Your task to perform on an android device: Add "razer huntsman" to the cart on walmart Image 0: 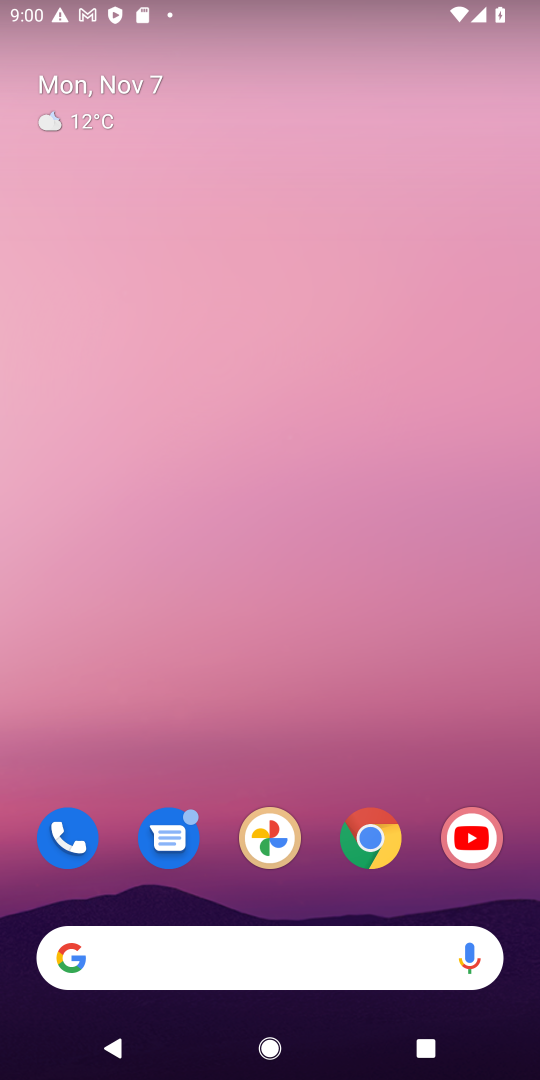
Step 0: click (386, 839)
Your task to perform on an android device: Add "razer huntsman" to the cart on walmart Image 1: 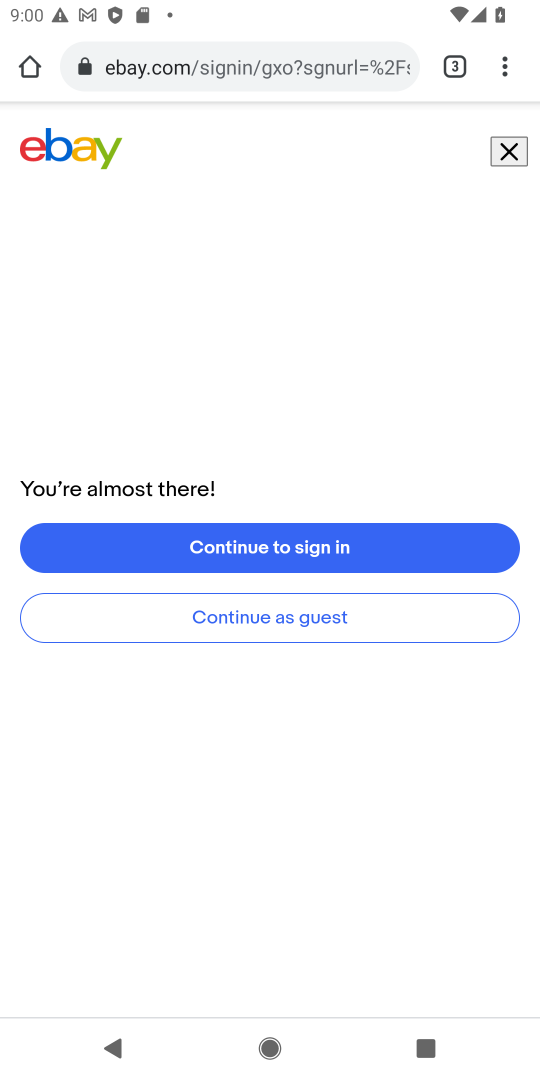
Step 1: click (453, 75)
Your task to perform on an android device: Add "razer huntsman" to the cart on walmart Image 2: 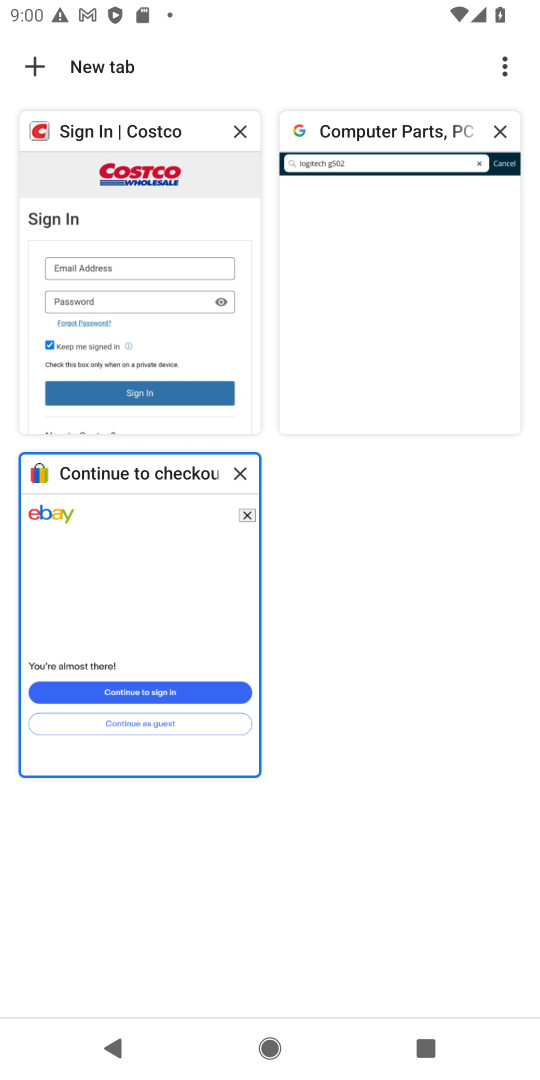
Step 2: click (23, 56)
Your task to perform on an android device: Add "razer huntsman" to the cart on walmart Image 3: 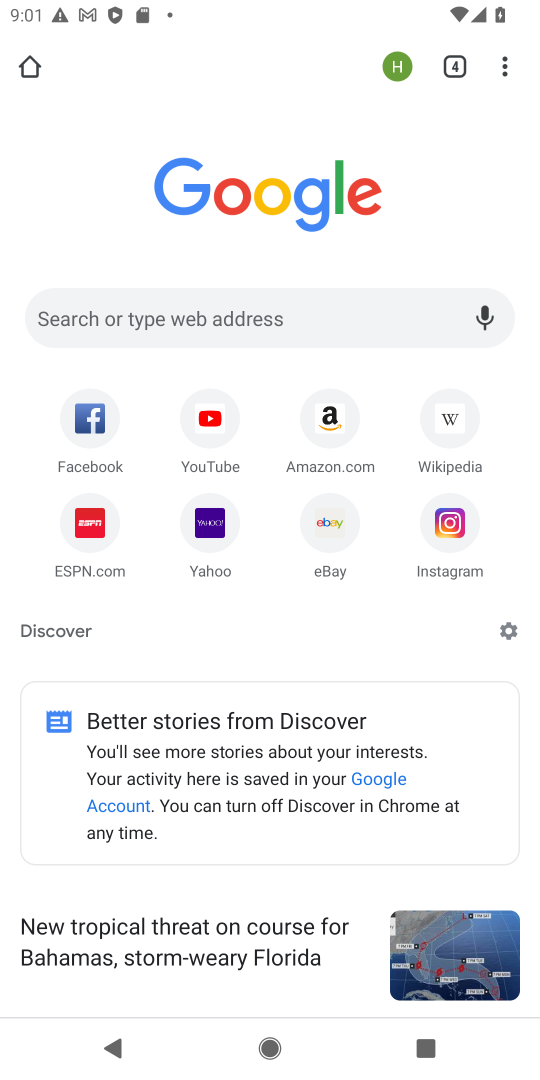
Step 3: click (172, 305)
Your task to perform on an android device: Add "razer huntsman" to the cart on walmart Image 4: 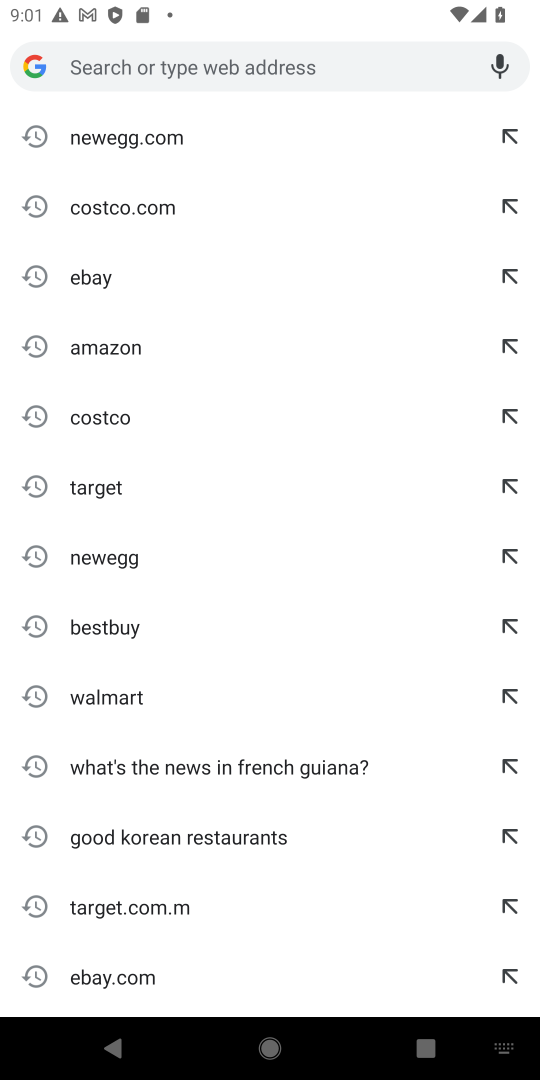
Step 4: click (123, 685)
Your task to perform on an android device: Add "razer huntsman" to the cart on walmart Image 5: 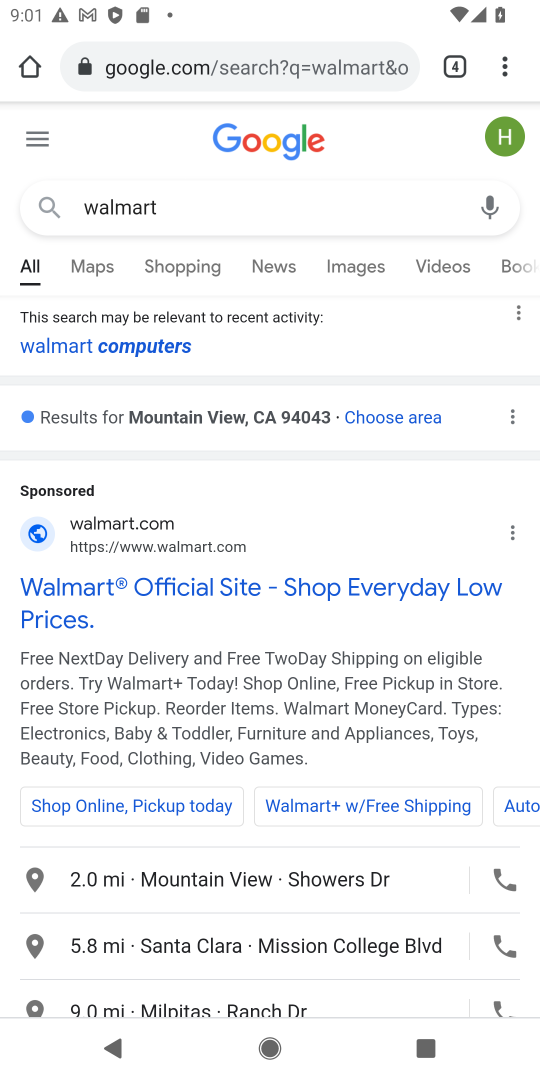
Step 5: drag from (155, 813) to (177, 394)
Your task to perform on an android device: Add "razer huntsman" to the cart on walmart Image 6: 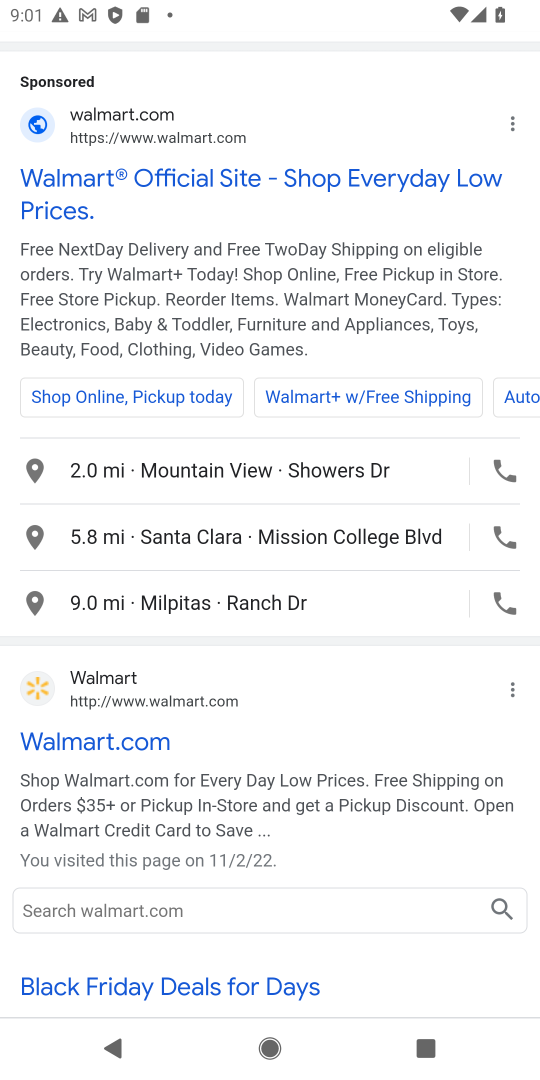
Step 6: click (124, 917)
Your task to perform on an android device: Add "razer huntsman" to the cart on walmart Image 7: 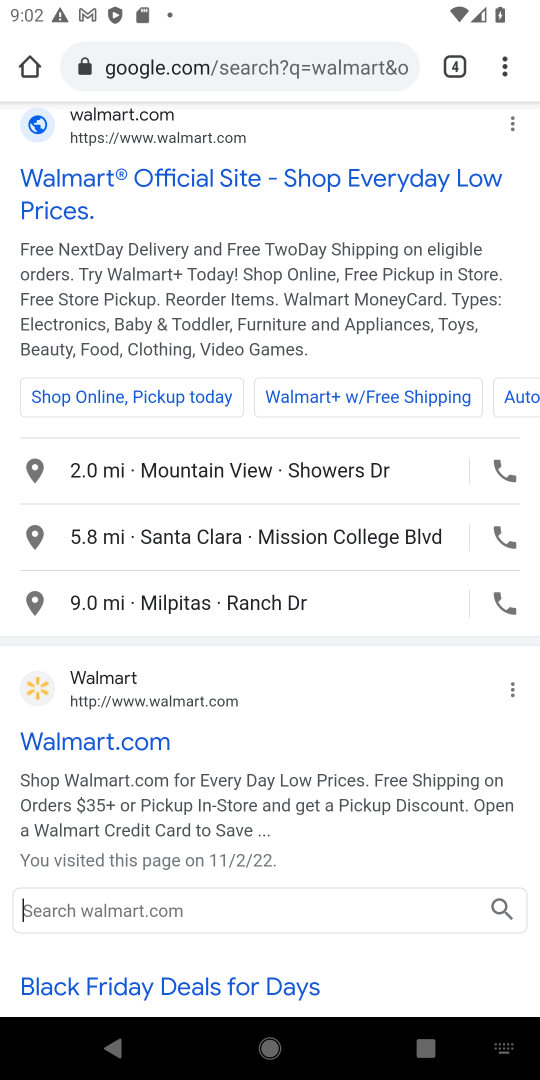
Step 7: press enter
Your task to perform on an android device: Add "razer huntsman" to the cart on walmart Image 8: 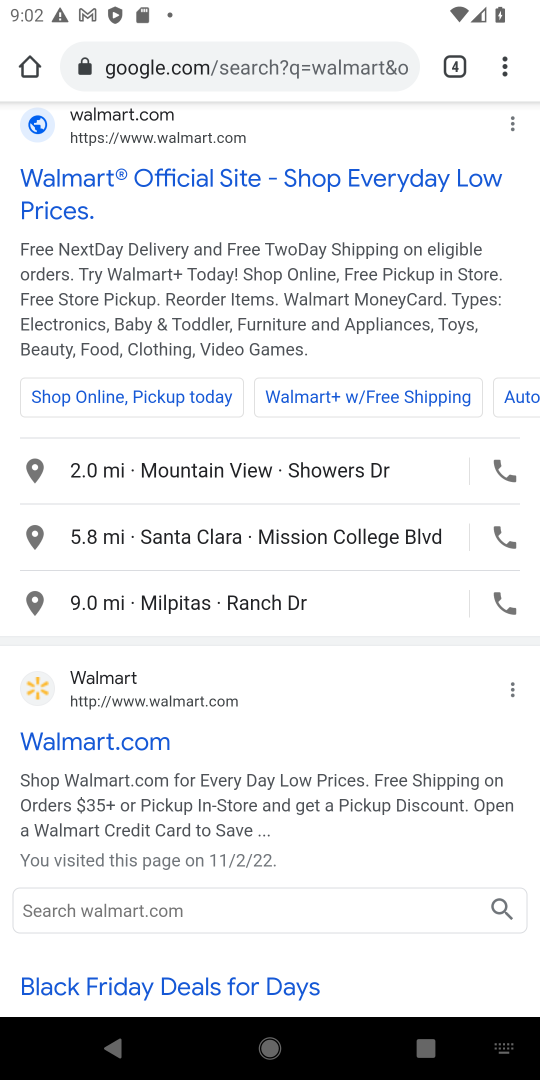
Step 8: type "razer huntsman"
Your task to perform on an android device: Add "razer huntsman" to the cart on walmart Image 9: 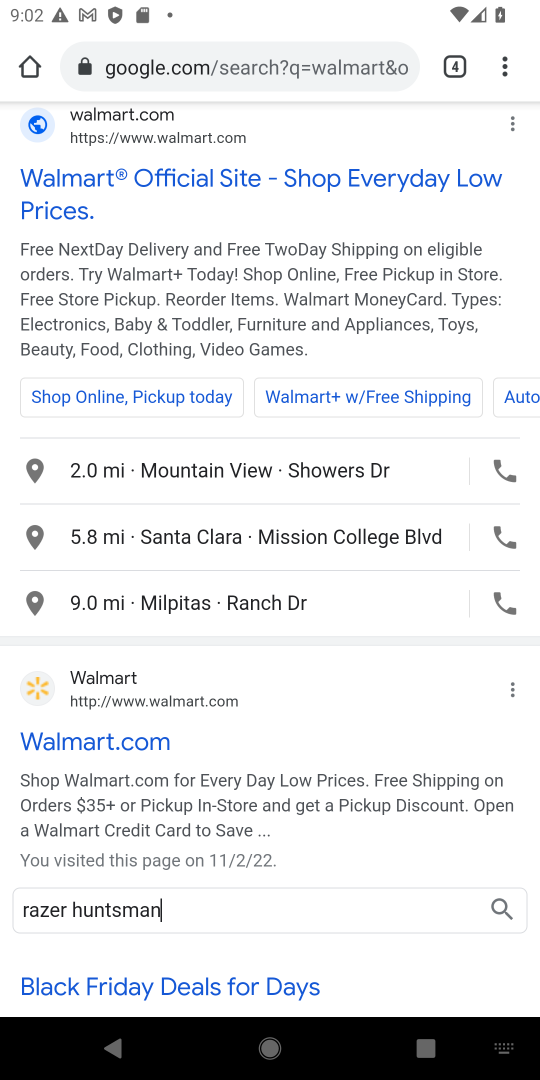
Step 9: click (500, 906)
Your task to perform on an android device: Add "razer huntsman" to the cart on walmart Image 10: 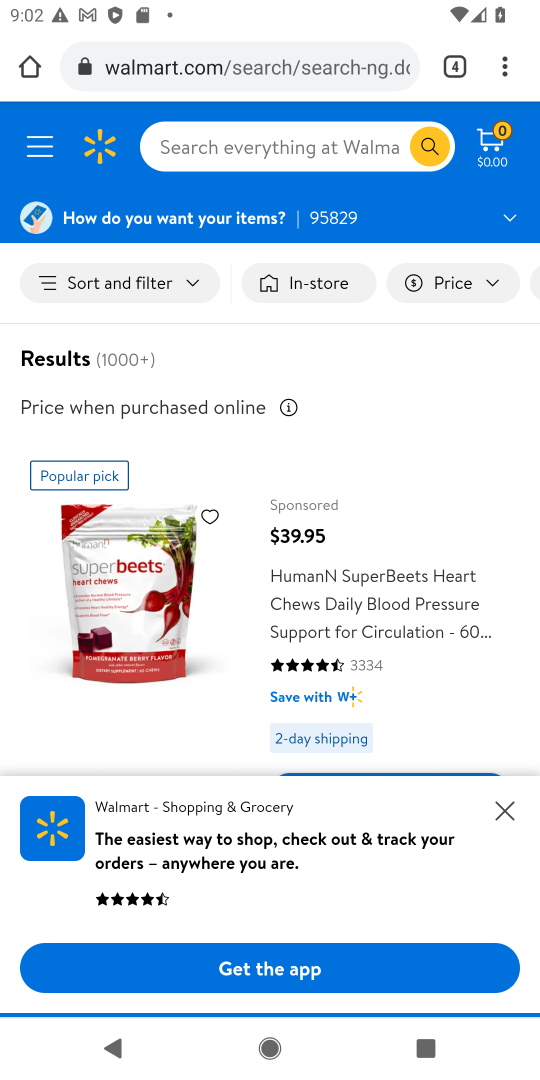
Step 10: click (511, 816)
Your task to perform on an android device: Add "razer huntsman" to the cart on walmart Image 11: 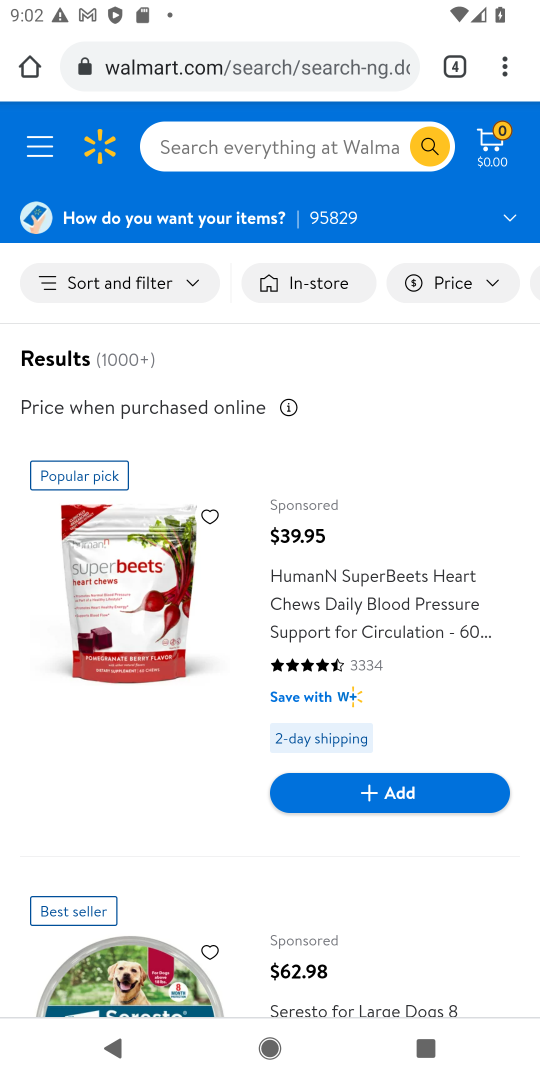
Step 11: click (382, 790)
Your task to perform on an android device: Add "razer huntsman" to the cart on walmart Image 12: 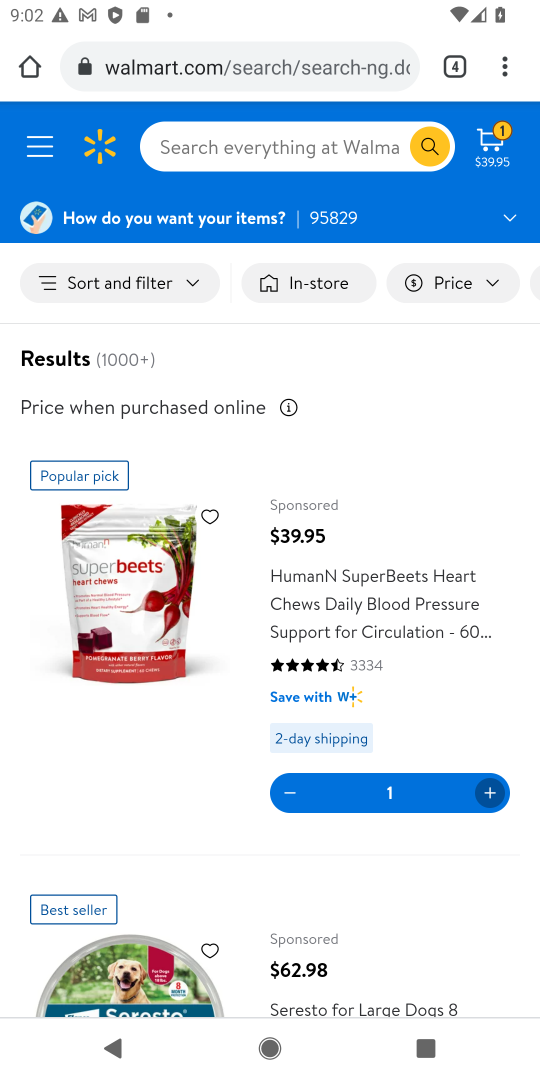
Step 12: task complete